Your task to perform on an android device: open app "PUBG MOBILE" (install if not already installed) and go to login screen Image 0: 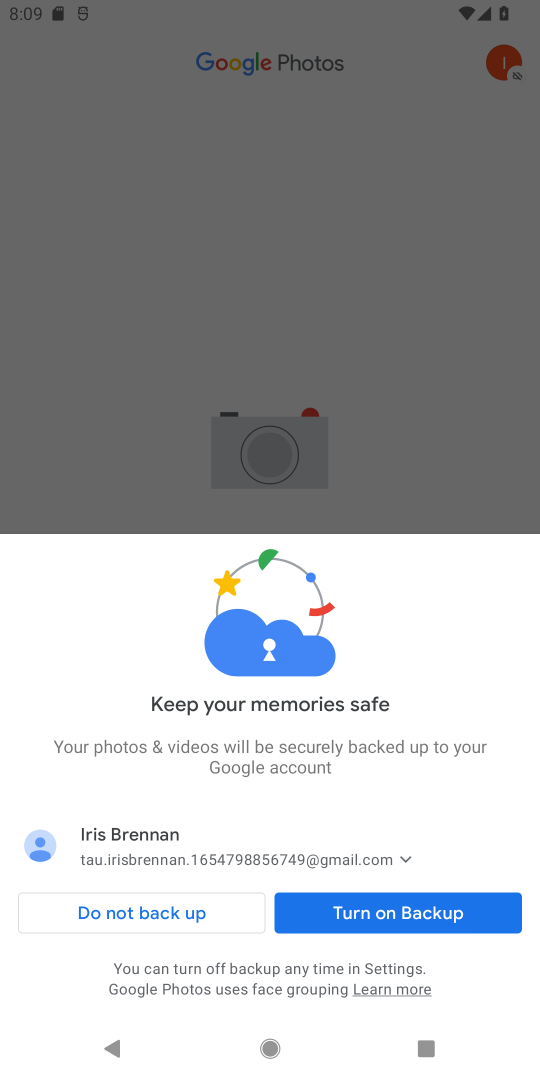
Step 0: press home button
Your task to perform on an android device: open app "PUBG MOBILE" (install if not already installed) and go to login screen Image 1: 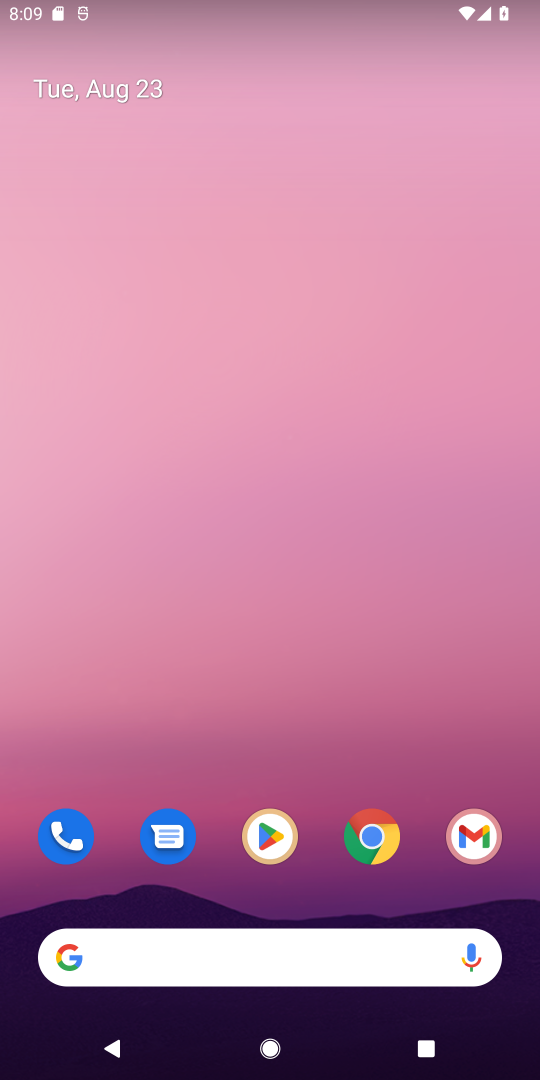
Step 1: click (271, 840)
Your task to perform on an android device: open app "PUBG MOBILE" (install if not already installed) and go to login screen Image 2: 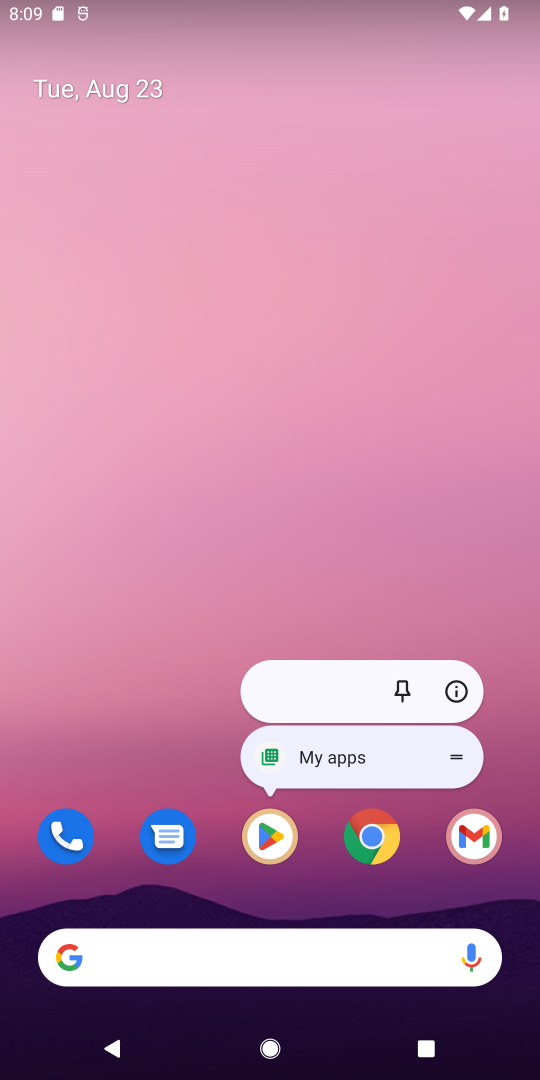
Step 2: click (271, 840)
Your task to perform on an android device: open app "PUBG MOBILE" (install if not already installed) and go to login screen Image 3: 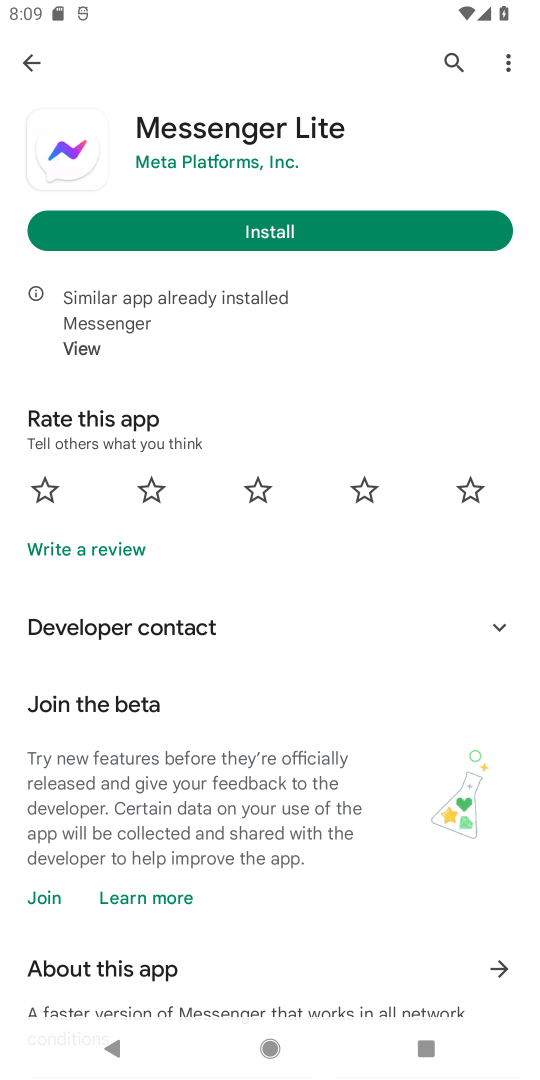
Step 3: click (451, 61)
Your task to perform on an android device: open app "PUBG MOBILE" (install if not already installed) and go to login screen Image 4: 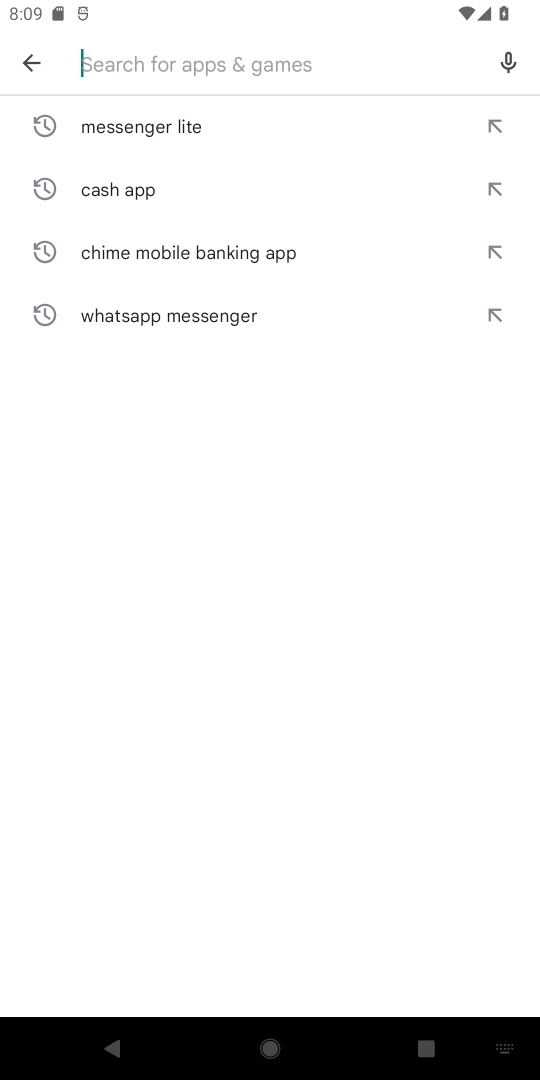
Step 4: type "PUBG MOBILE"
Your task to perform on an android device: open app "PUBG MOBILE" (install if not already installed) and go to login screen Image 5: 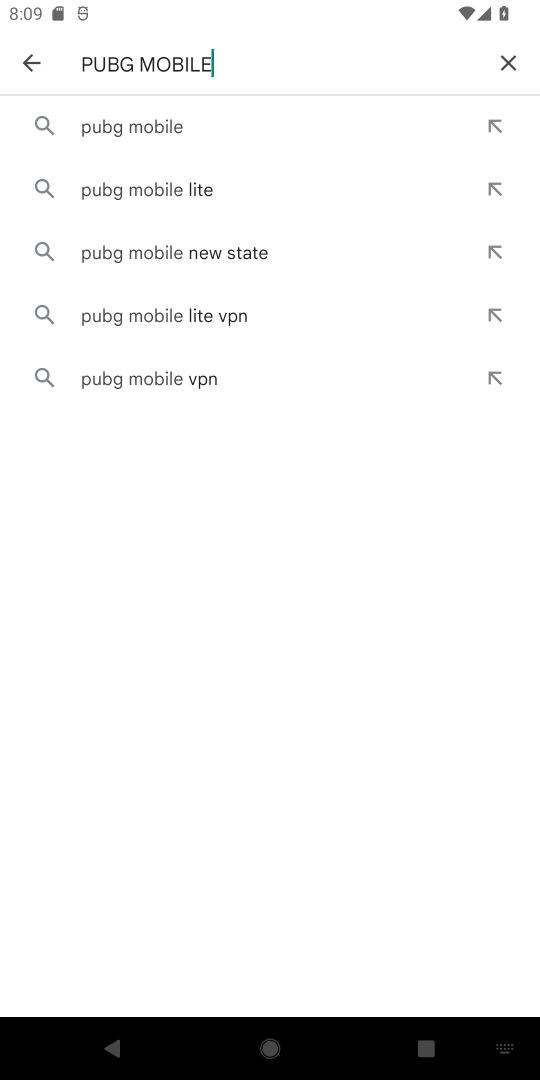
Step 5: click (162, 138)
Your task to perform on an android device: open app "PUBG MOBILE" (install if not already installed) and go to login screen Image 6: 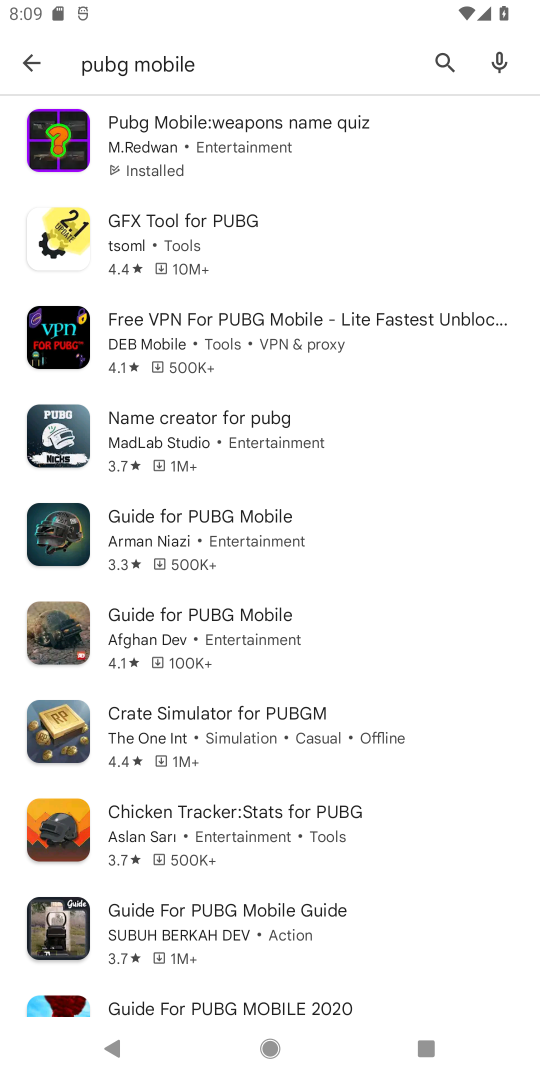
Step 6: click (229, 162)
Your task to perform on an android device: open app "PUBG MOBILE" (install if not already installed) and go to login screen Image 7: 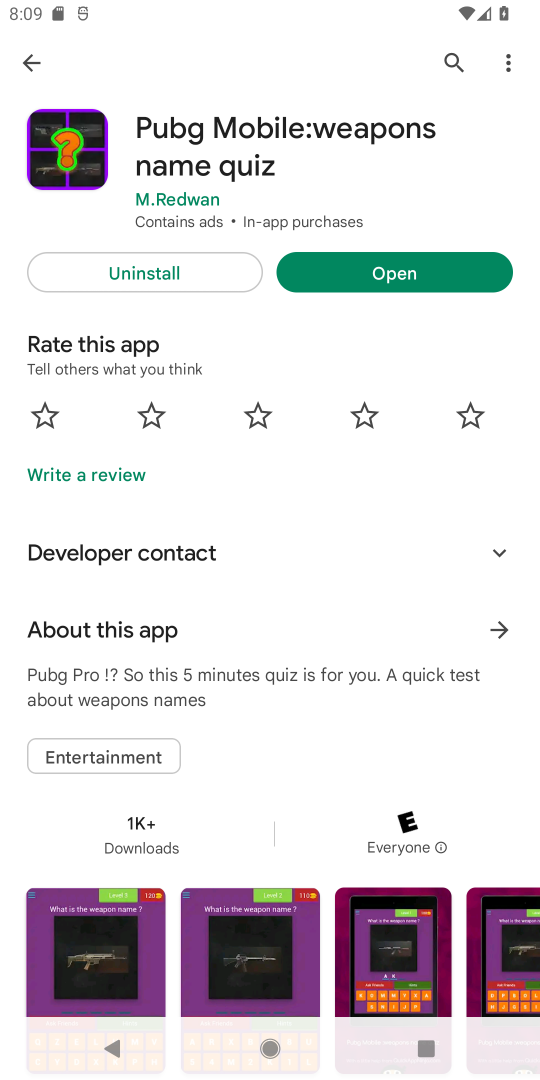
Step 7: click (378, 265)
Your task to perform on an android device: open app "PUBG MOBILE" (install if not already installed) and go to login screen Image 8: 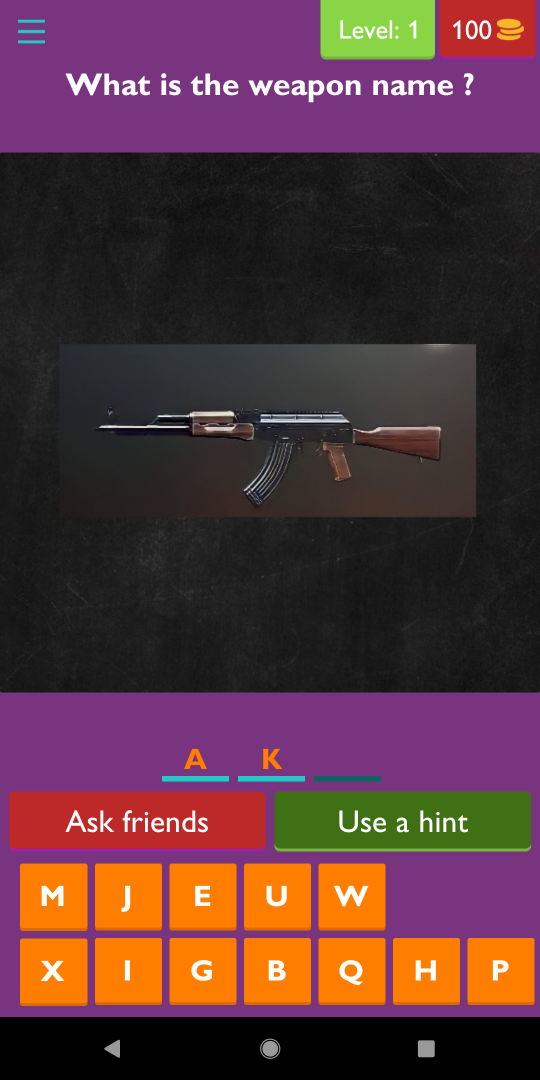
Step 8: task complete